Your task to perform on an android device: toggle translation in the chrome app Image 0: 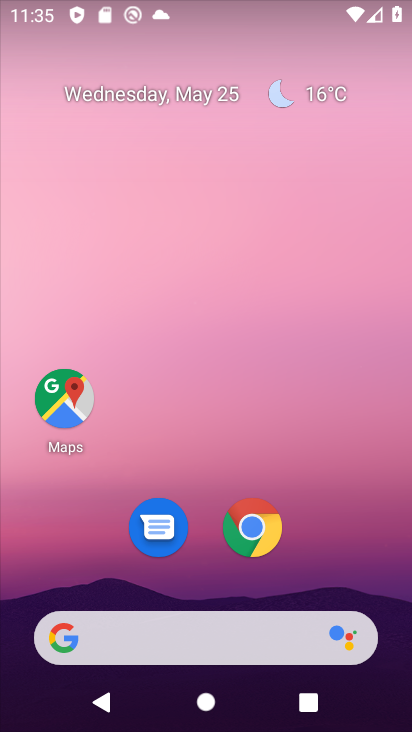
Step 0: click (275, 550)
Your task to perform on an android device: toggle translation in the chrome app Image 1: 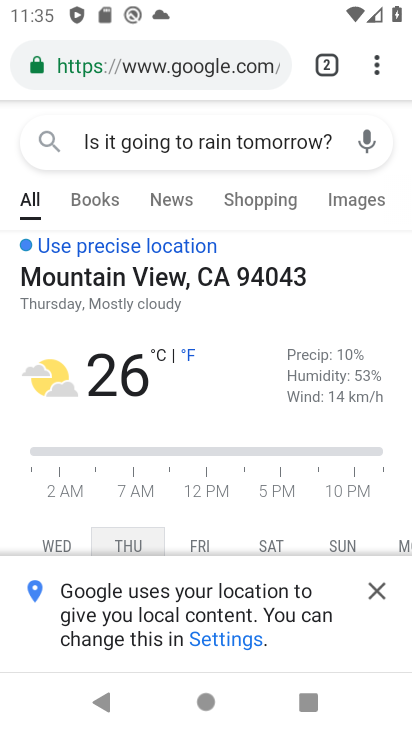
Step 1: drag from (376, 70) to (188, 557)
Your task to perform on an android device: toggle translation in the chrome app Image 2: 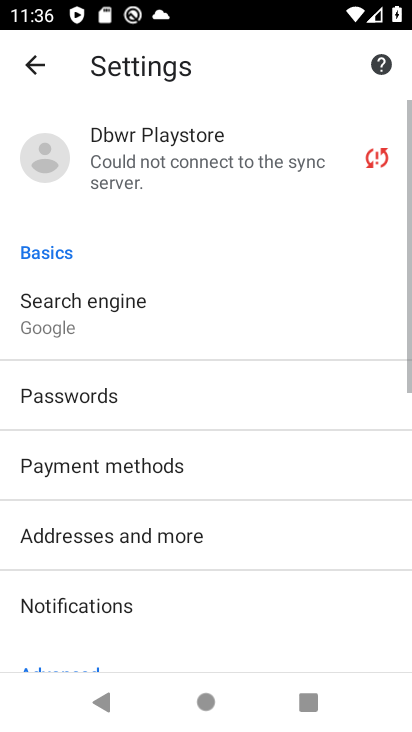
Step 2: drag from (237, 582) to (277, 12)
Your task to perform on an android device: toggle translation in the chrome app Image 3: 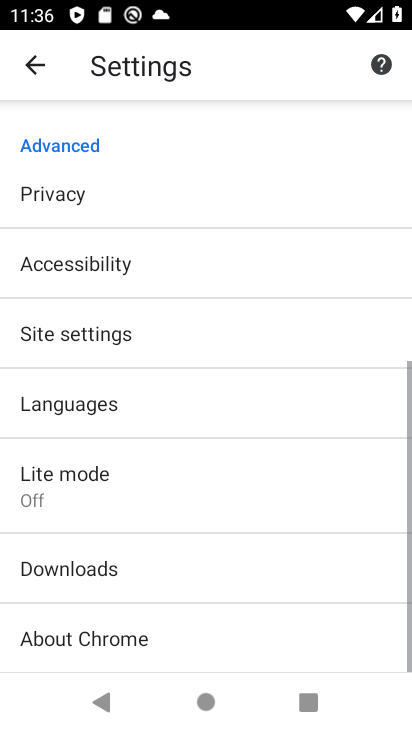
Step 3: click (122, 398)
Your task to perform on an android device: toggle translation in the chrome app Image 4: 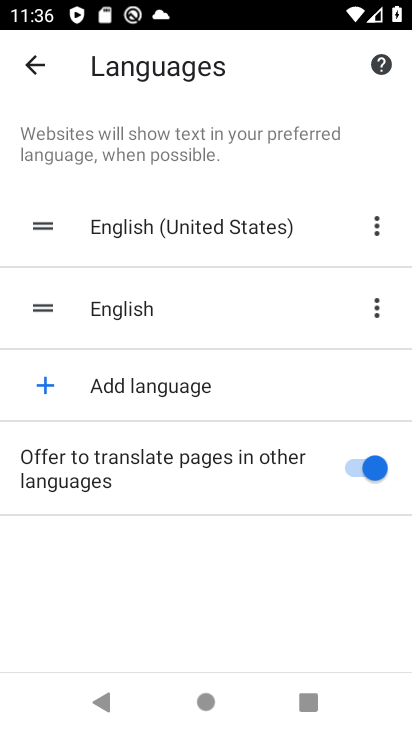
Step 4: click (255, 505)
Your task to perform on an android device: toggle translation in the chrome app Image 5: 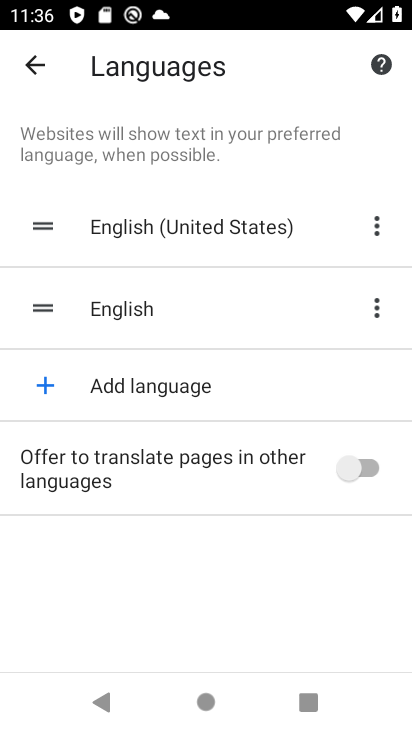
Step 5: task complete